Your task to perform on an android device: make emails show in primary in the gmail app Image 0: 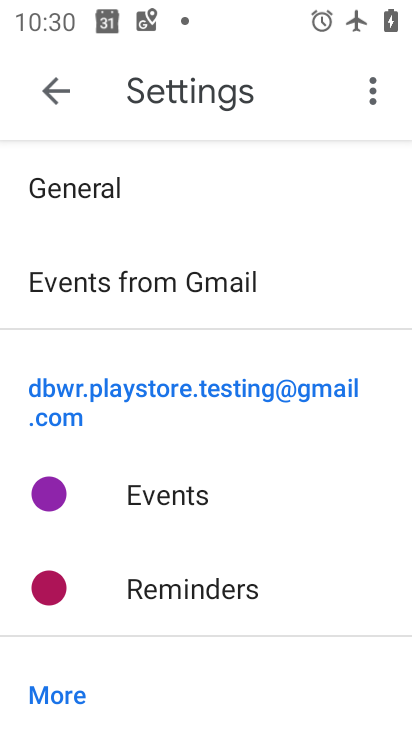
Step 0: press home button
Your task to perform on an android device: make emails show in primary in the gmail app Image 1: 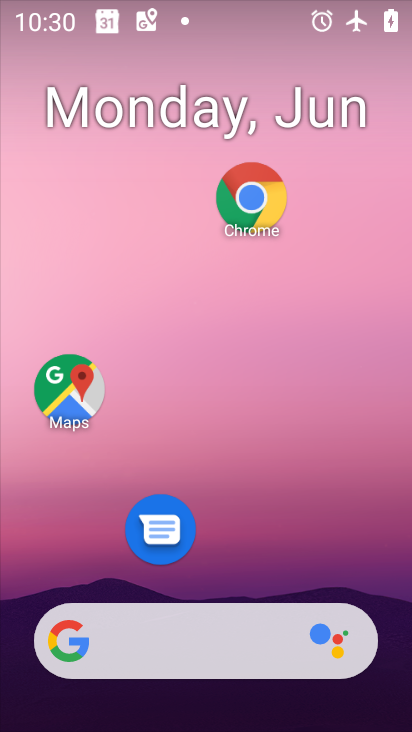
Step 1: drag from (224, 564) to (205, 107)
Your task to perform on an android device: make emails show in primary in the gmail app Image 2: 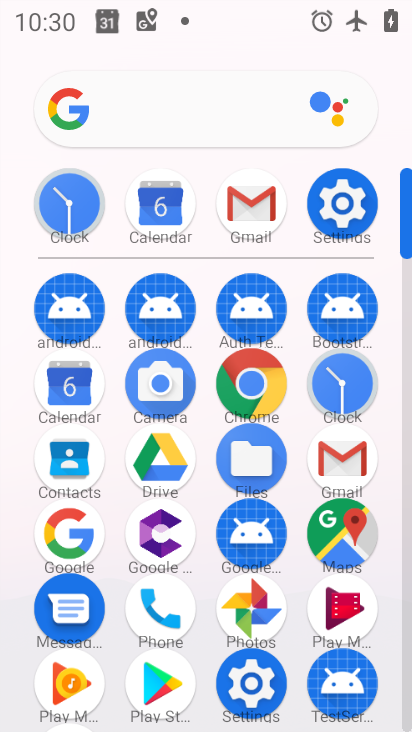
Step 2: click (235, 197)
Your task to perform on an android device: make emails show in primary in the gmail app Image 3: 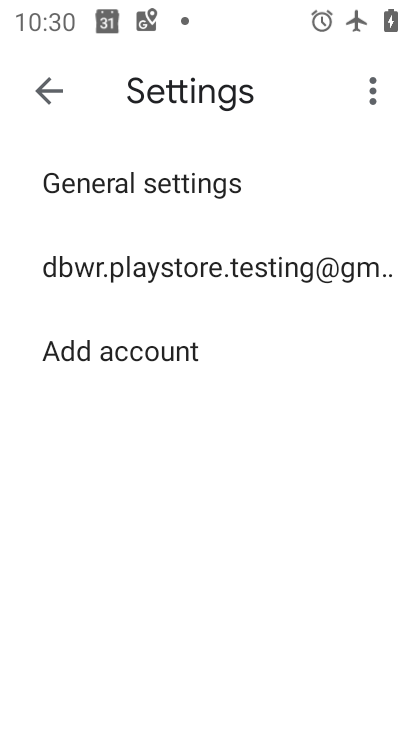
Step 3: click (43, 110)
Your task to perform on an android device: make emails show in primary in the gmail app Image 4: 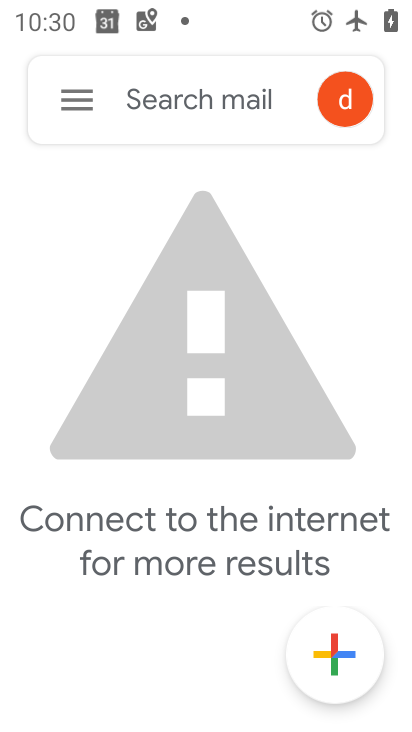
Step 4: click (53, 106)
Your task to perform on an android device: make emails show in primary in the gmail app Image 5: 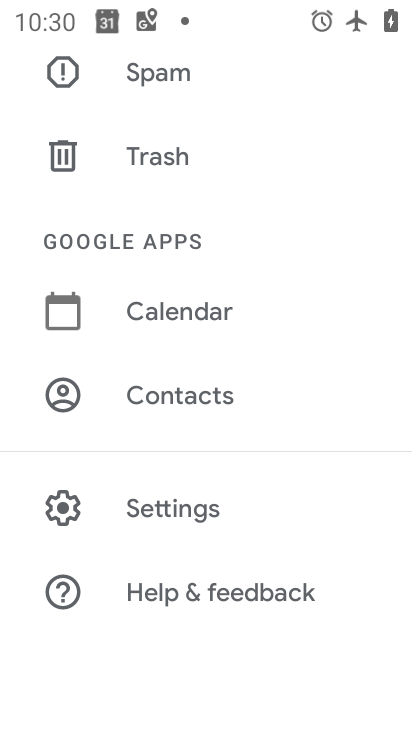
Step 5: click (202, 508)
Your task to perform on an android device: make emails show in primary in the gmail app Image 6: 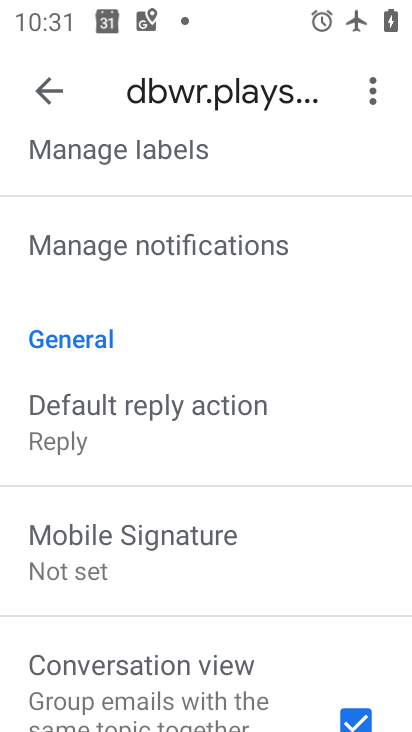
Step 6: drag from (224, 251) to (252, 601)
Your task to perform on an android device: make emails show in primary in the gmail app Image 7: 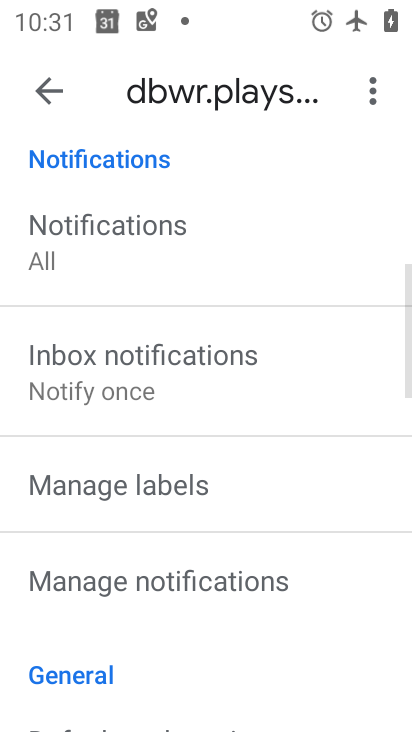
Step 7: drag from (215, 212) to (241, 495)
Your task to perform on an android device: make emails show in primary in the gmail app Image 8: 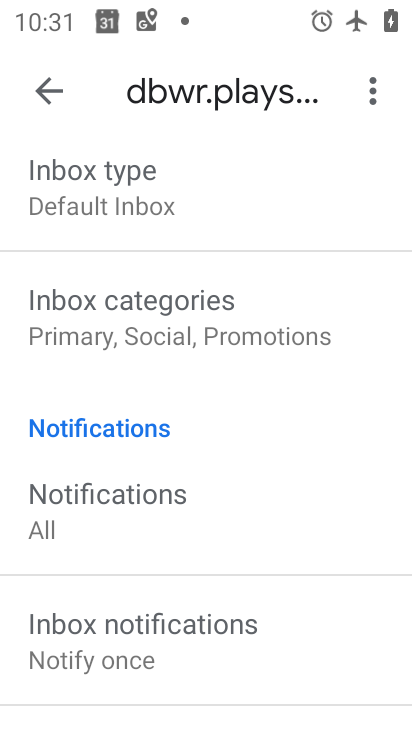
Step 8: drag from (196, 207) to (226, 412)
Your task to perform on an android device: make emails show in primary in the gmail app Image 9: 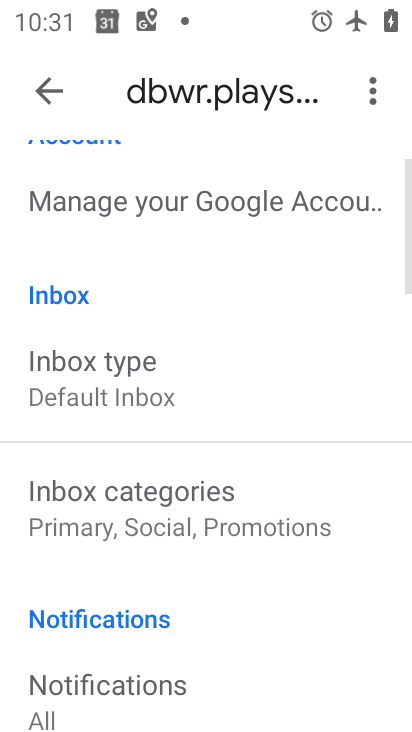
Step 9: drag from (218, 231) to (248, 450)
Your task to perform on an android device: make emails show in primary in the gmail app Image 10: 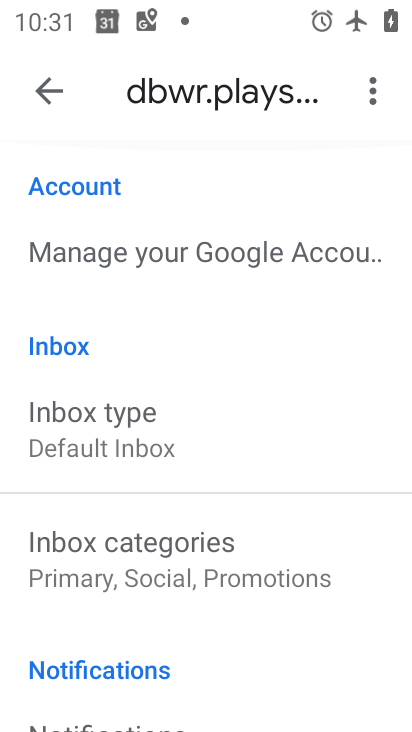
Step 10: click (139, 416)
Your task to perform on an android device: make emails show in primary in the gmail app Image 11: 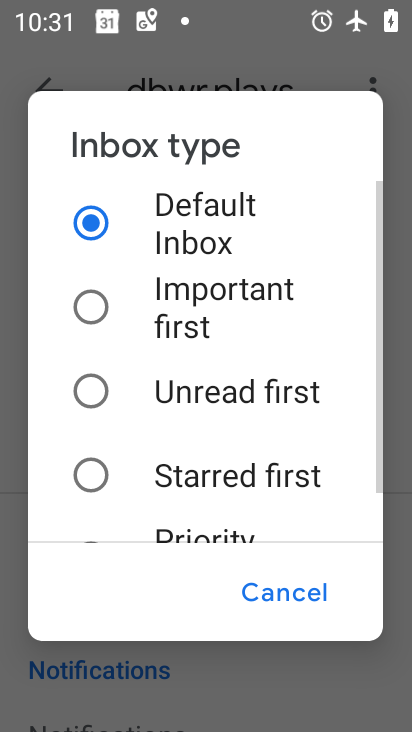
Step 11: task complete